Your task to perform on an android device: Open display settings Image 0: 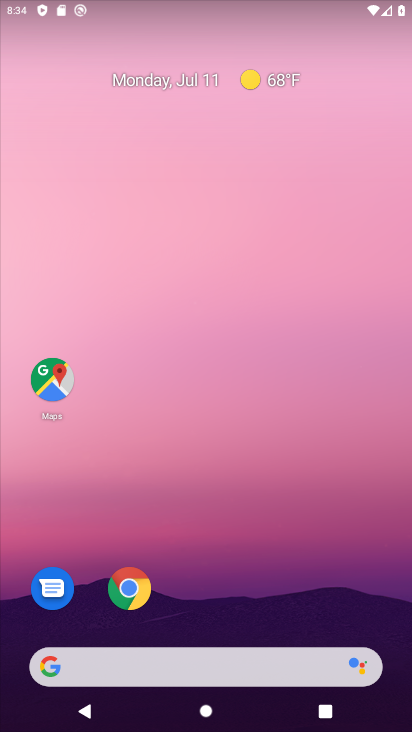
Step 0: drag from (209, 635) to (34, 405)
Your task to perform on an android device: Open display settings Image 1: 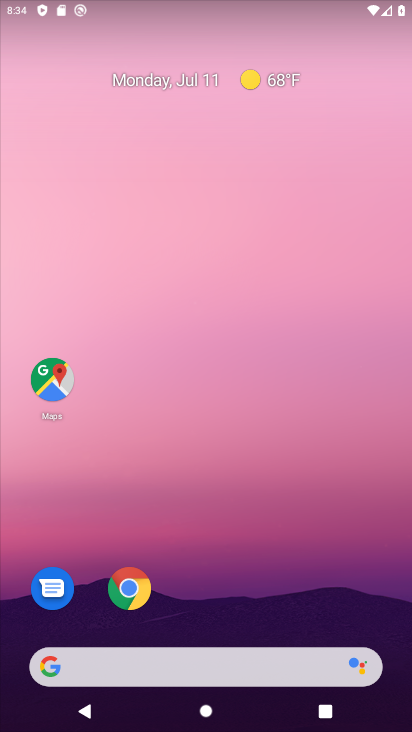
Step 1: click (205, 632)
Your task to perform on an android device: Open display settings Image 2: 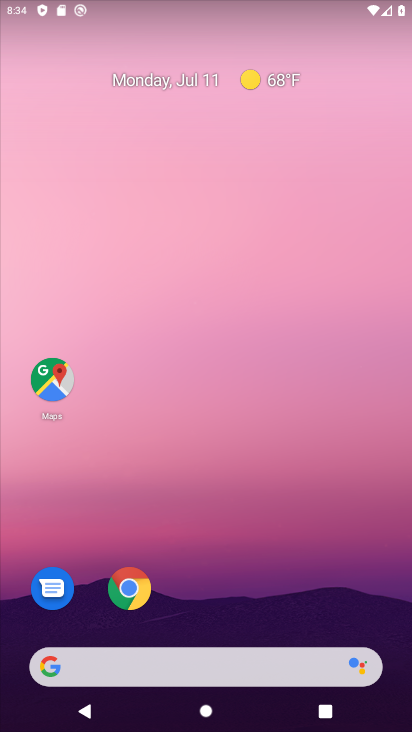
Step 2: drag from (206, 628) to (155, 67)
Your task to perform on an android device: Open display settings Image 3: 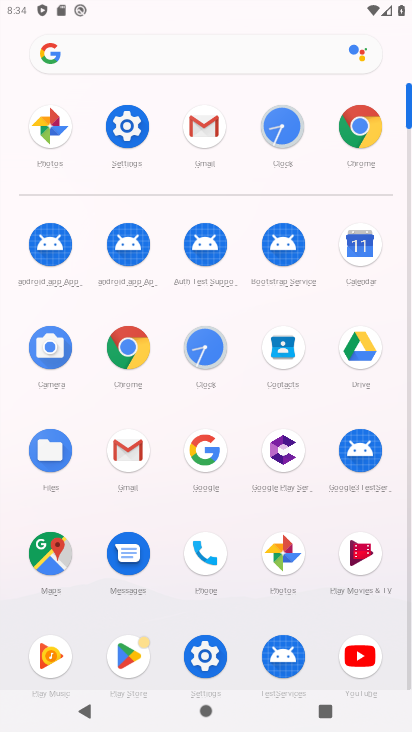
Step 3: click (201, 656)
Your task to perform on an android device: Open display settings Image 4: 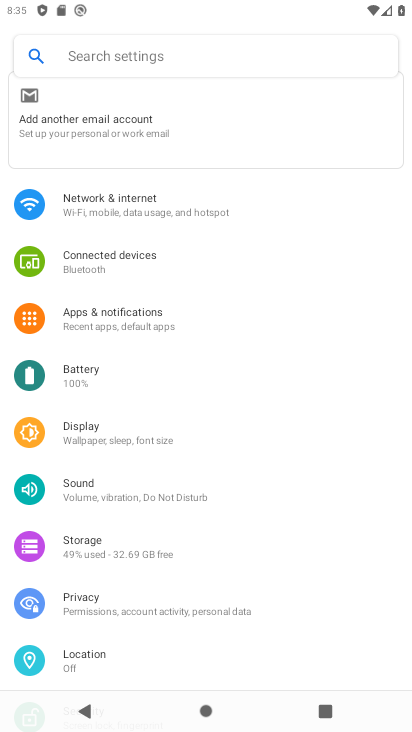
Step 4: click (84, 423)
Your task to perform on an android device: Open display settings Image 5: 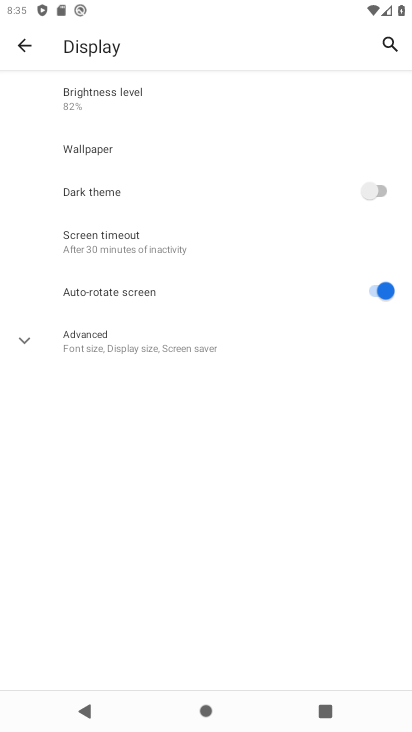
Step 5: task complete